Your task to perform on an android device: turn off location Image 0: 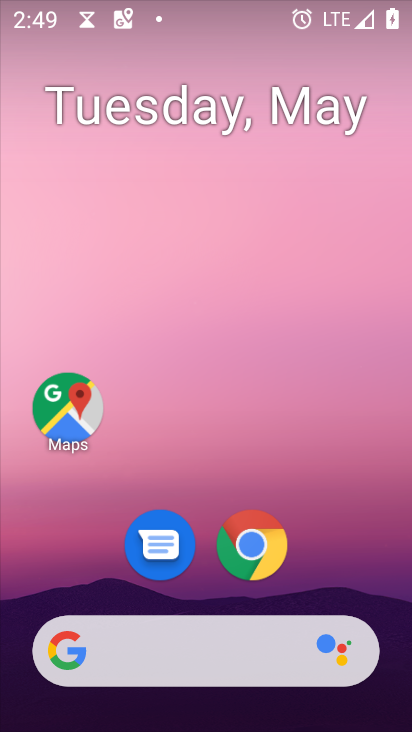
Step 0: drag from (341, 536) to (240, 7)
Your task to perform on an android device: turn off location Image 1: 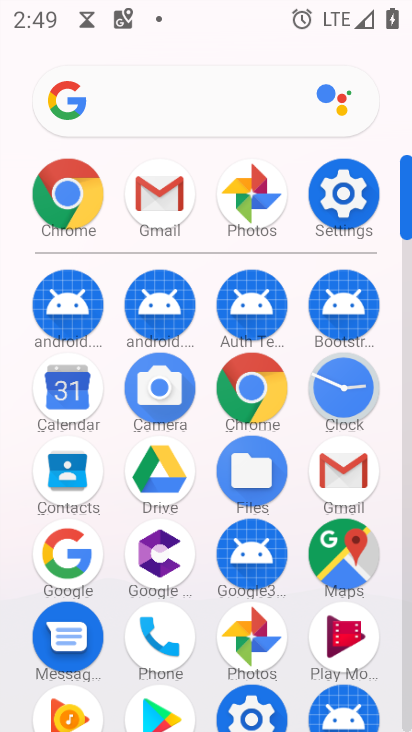
Step 1: drag from (8, 493) to (21, 208)
Your task to perform on an android device: turn off location Image 2: 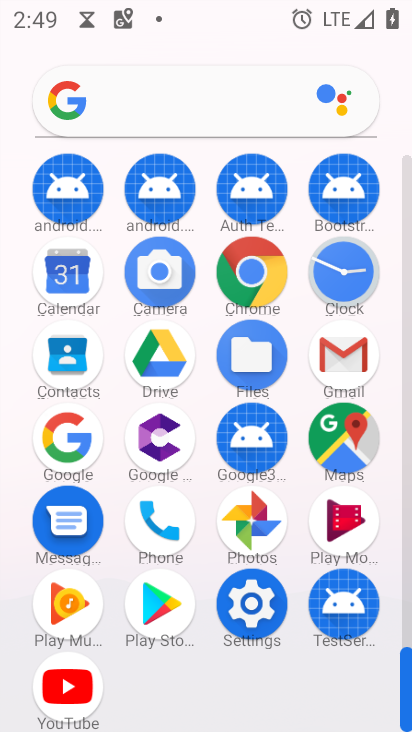
Step 2: click (251, 601)
Your task to perform on an android device: turn off location Image 3: 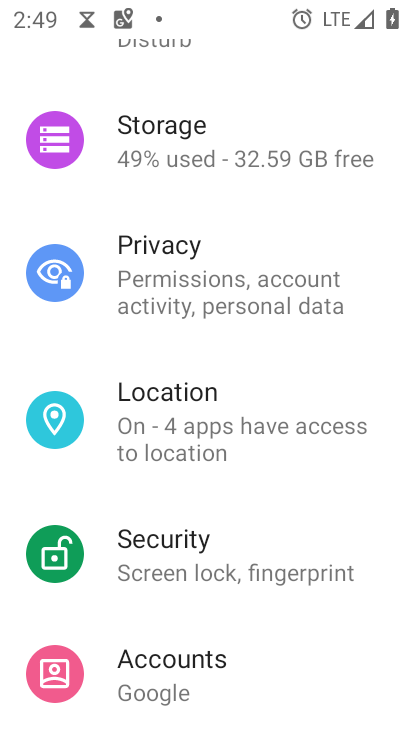
Step 3: click (233, 420)
Your task to perform on an android device: turn off location Image 4: 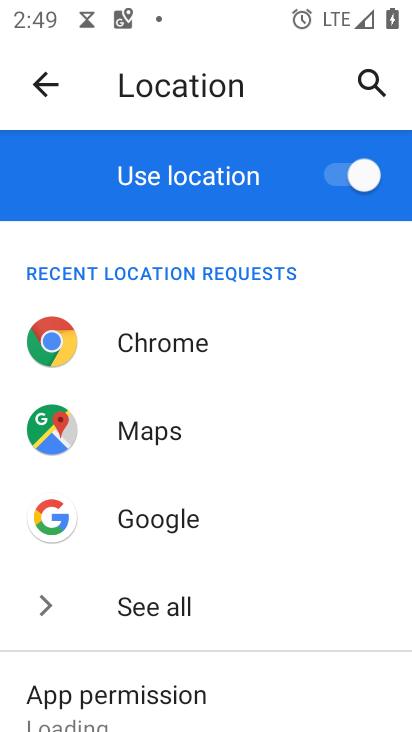
Step 4: click (338, 168)
Your task to perform on an android device: turn off location Image 5: 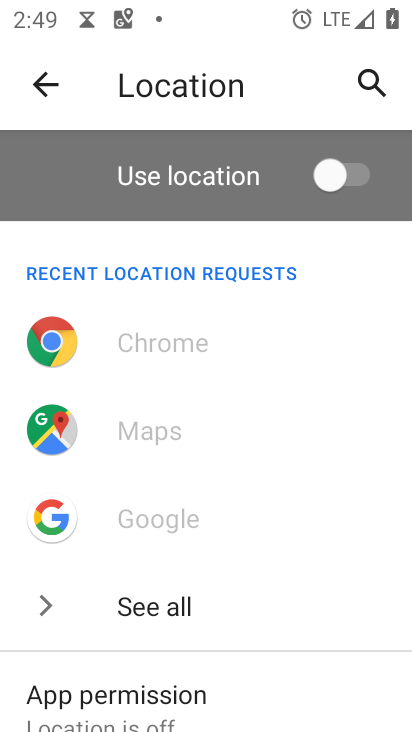
Step 5: drag from (316, 574) to (251, 200)
Your task to perform on an android device: turn off location Image 6: 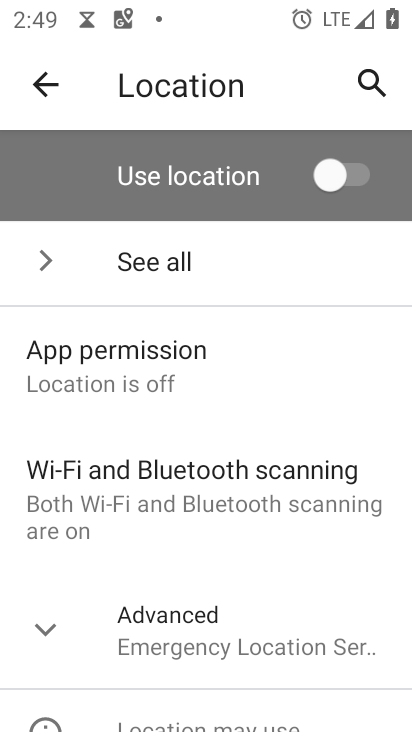
Step 6: click (54, 625)
Your task to perform on an android device: turn off location Image 7: 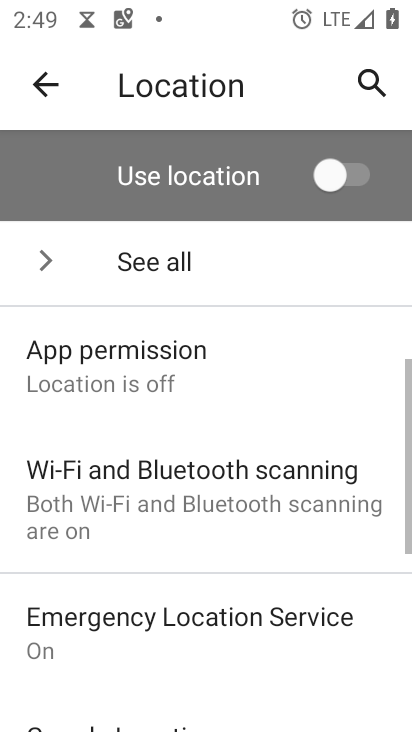
Step 7: task complete